Your task to perform on an android device: Open the calendar and show me this week's events? Image 0: 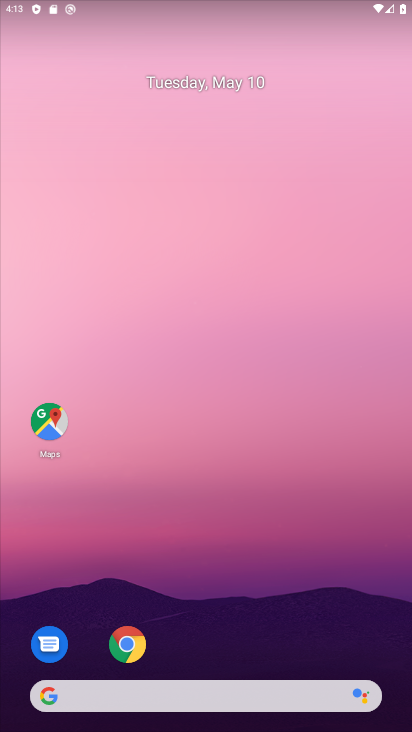
Step 0: drag from (204, 681) to (171, 343)
Your task to perform on an android device: Open the calendar and show me this week's events? Image 1: 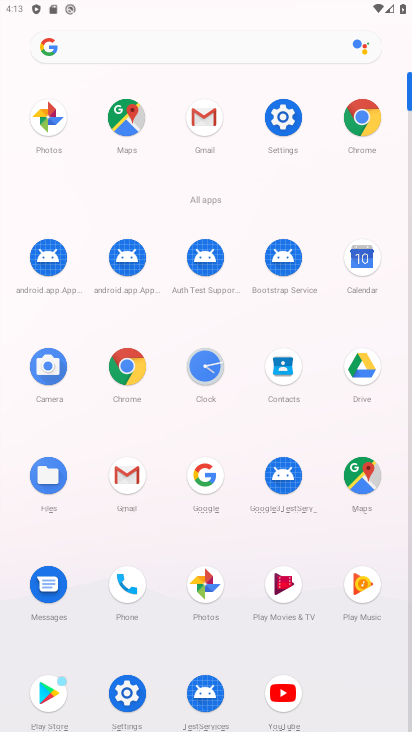
Step 1: click (359, 259)
Your task to perform on an android device: Open the calendar and show me this week's events? Image 2: 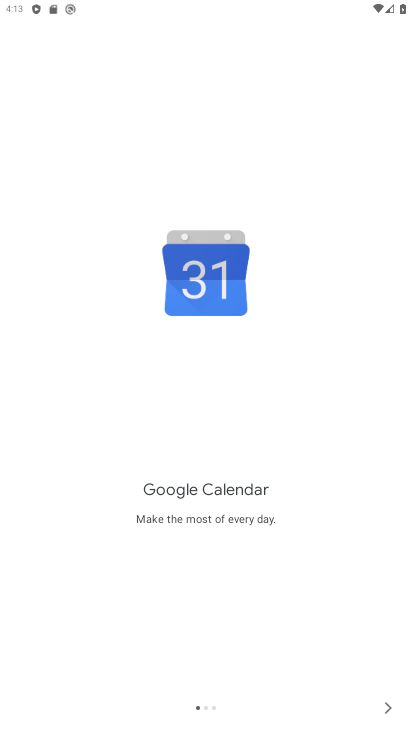
Step 2: click (389, 709)
Your task to perform on an android device: Open the calendar and show me this week's events? Image 3: 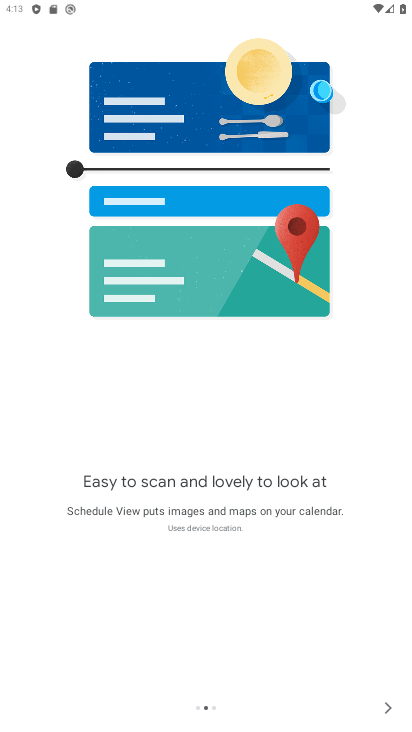
Step 3: click (389, 709)
Your task to perform on an android device: Open the calendar and show me this week's events? Image 4: 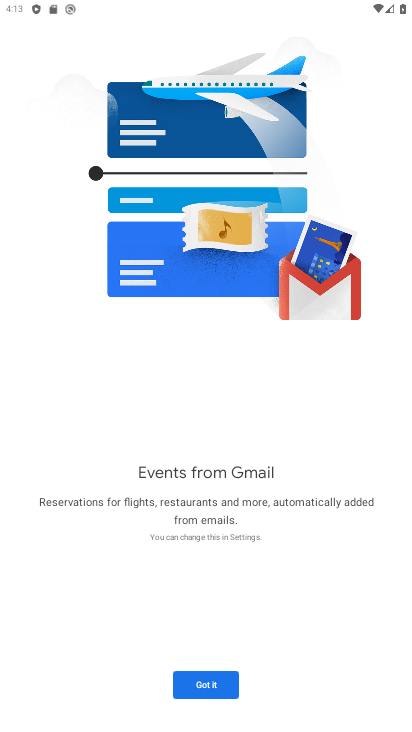
Step 4: click (224, 678)
Your task to perform on an android device: Open the calendar and show me this week's events? Image 5: 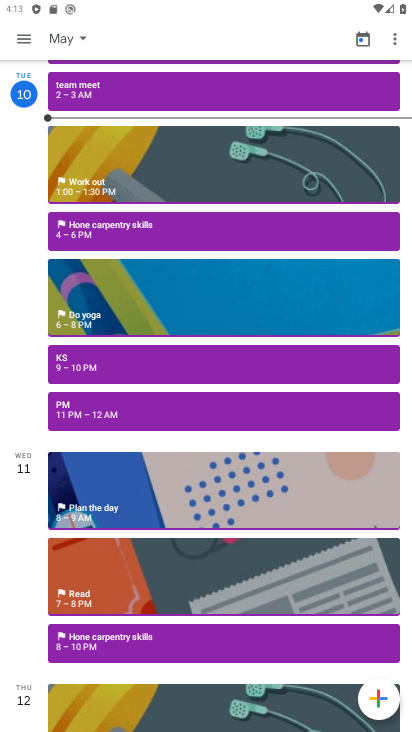
Step 5: click (77, 38)
Your task to perform on an android device: Open the calendar and show me this week's events? Image 6: 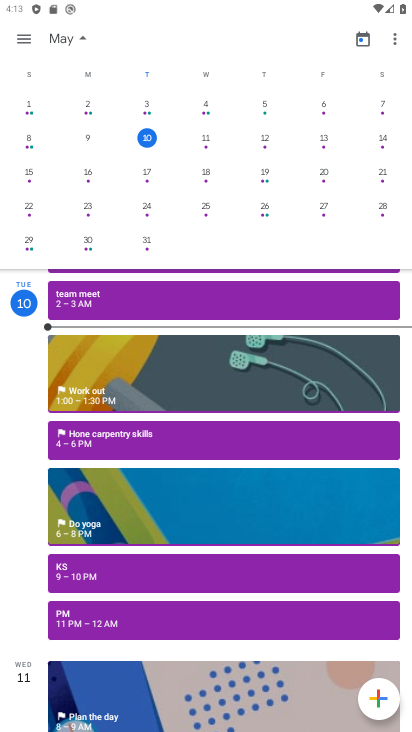
Step 6: click (377, 140)
Your task to perform on an android device: Open the calendar and show me this week's events? Image 7: 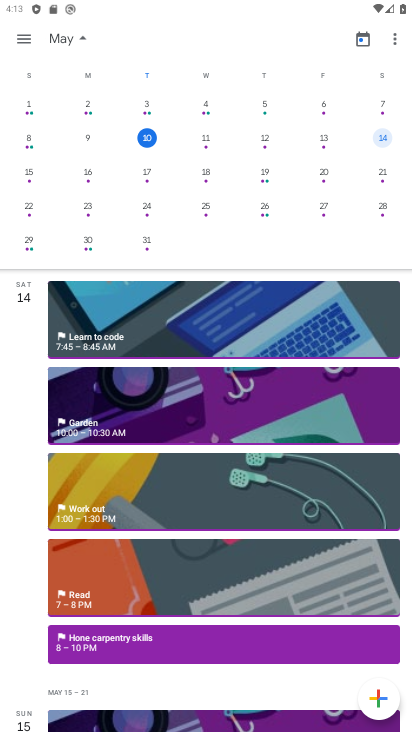
Step 7: task complete